Your task to perform on an android device: turn off notifications settings in the gmail app Image 0: 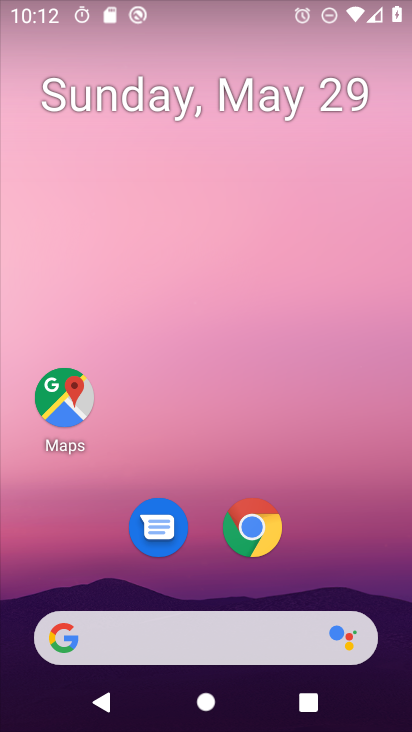
Step 0: drag from (397, 621) to (287, 25)
Your task to perform on an android device: turn off notifications settings in the gmail app Image 1: 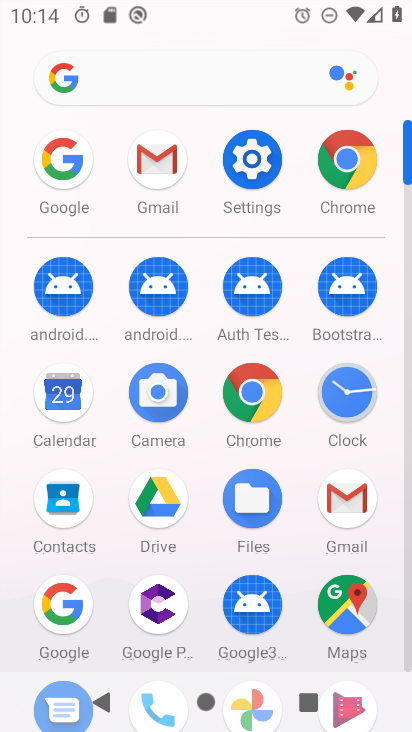
Step 1: click (329, 525)
Your task to perform on an android device: turn off notifications settings in the gmail app Image 2: 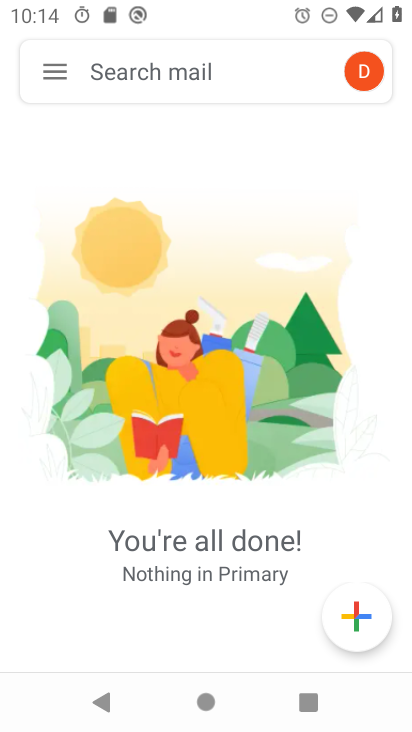
Step 2: click (37, 81)
Your task to perform on an android device: turn off notifications settings in the gmail app Image 3: 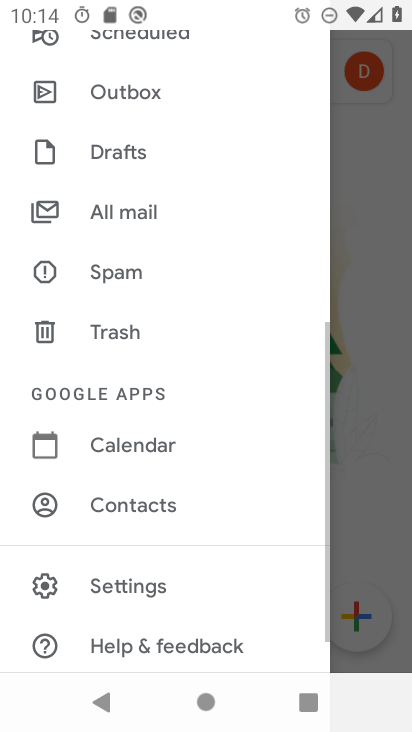
Step 3: click (99, 593)
Your task to perform on an android device: turn off notifications settings in the gmail app Image 4: 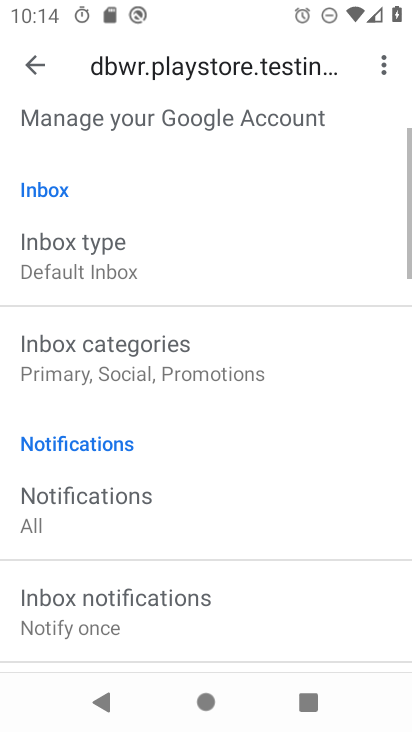
Step 4: click (141, 519)
Your task to perform on an android device: turn off notifications settings in the gmail app Image 5: 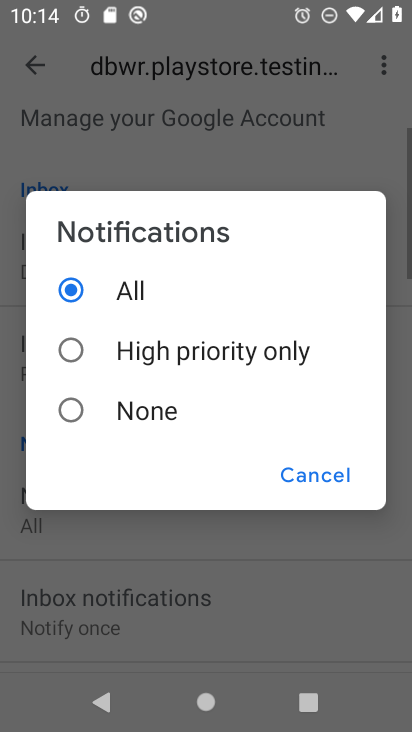
Step 5: click (117, 413)
Your task to perform on an android device: turn off notifications settings in the gmail app Image 6: 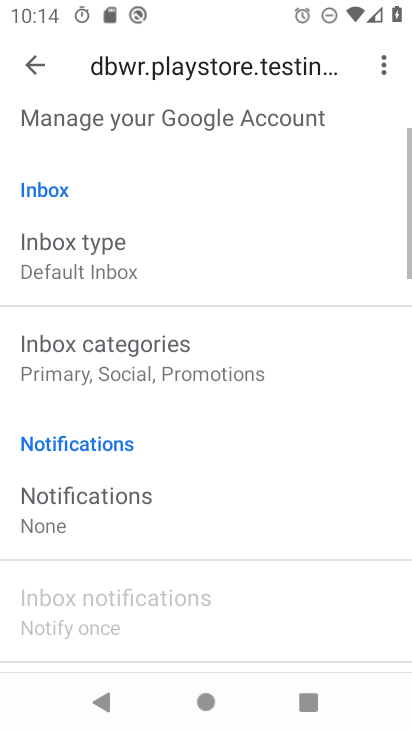
Step 6: task complete